Your task to perform on an android device: move a message to another label in the gmail app Image 0: 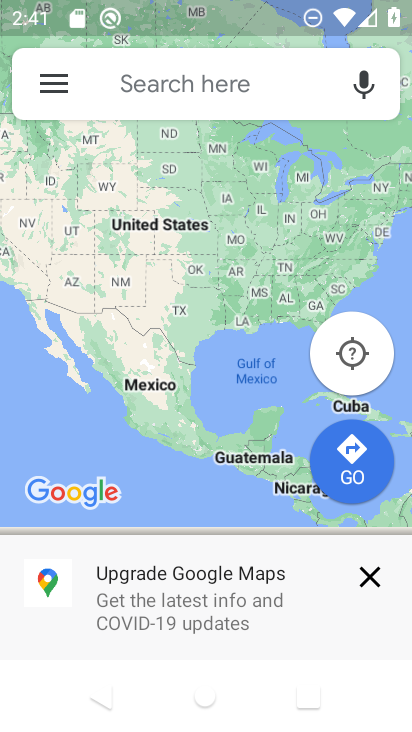
Step 0: press back button
Your task to perform on an android device: move a message to another label in the gmail app Image 1: 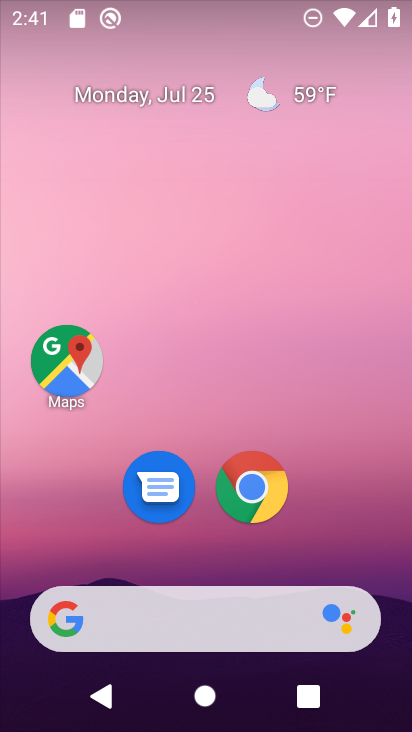
Step 1: drag from (131, 580) to (246, 17)
Your task to perform on an android device: move a message to another label in the gmail app Image 2: 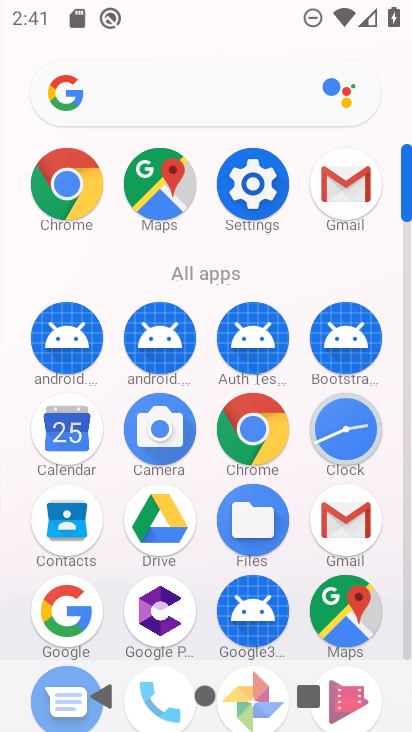
Step 2: click (361, 182)
Your task to perform on an android device: move a message to another label in the gmail app Image 3: 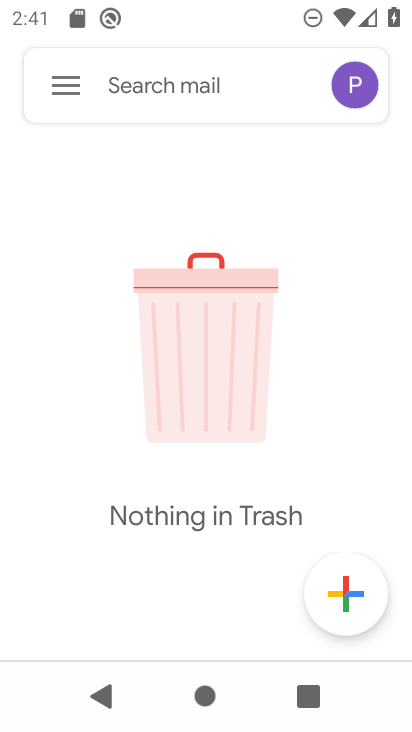
Step 3: click (56, 88)
Your task to perform on an android device: move a message to another label in the gmail app Image 4: 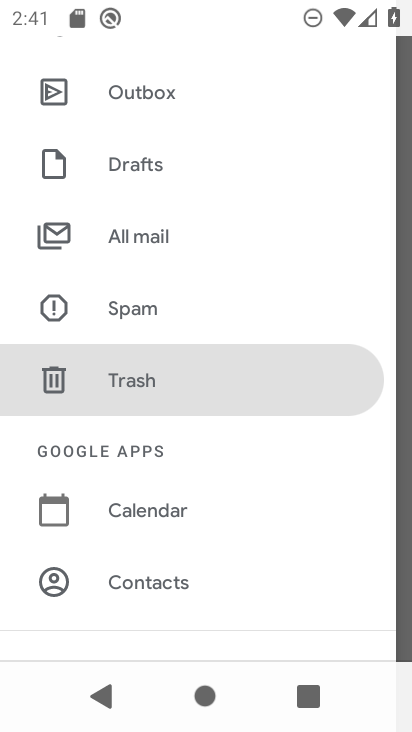
Step 4: click (159, 237)
Your task to perform on an android device: move a message to another label in the gmail app Image 5: 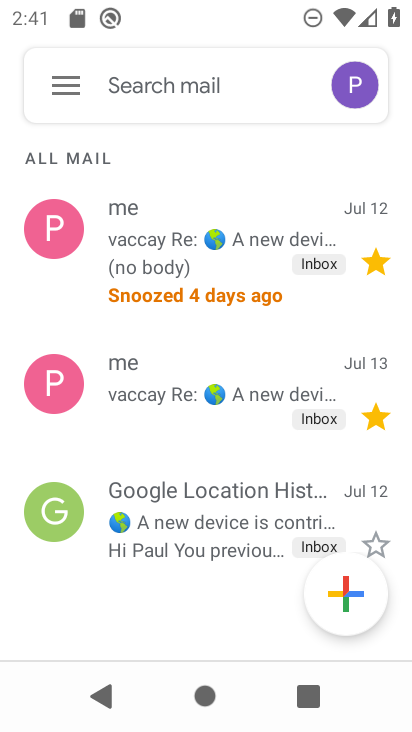
Step 5: click (167, 389)
Your task to perform on an android device: move a message to another label in the gmail app Image 6: 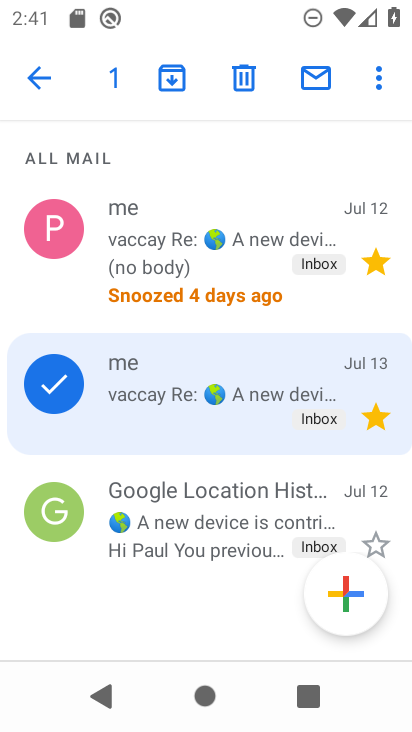
Step 6: click (379, 79)
Your task to perform on an android device: move a message to another label in the gmail app Image 7: 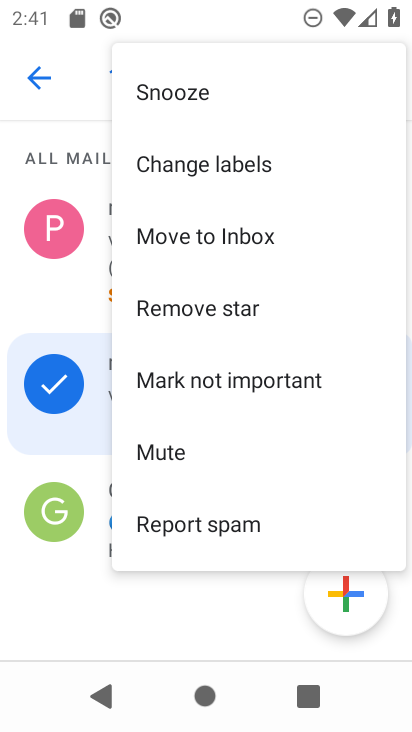
Step 7: click (221, 242)
Your task to perform on an android device: move a message to another label in the gmail app Image 8: 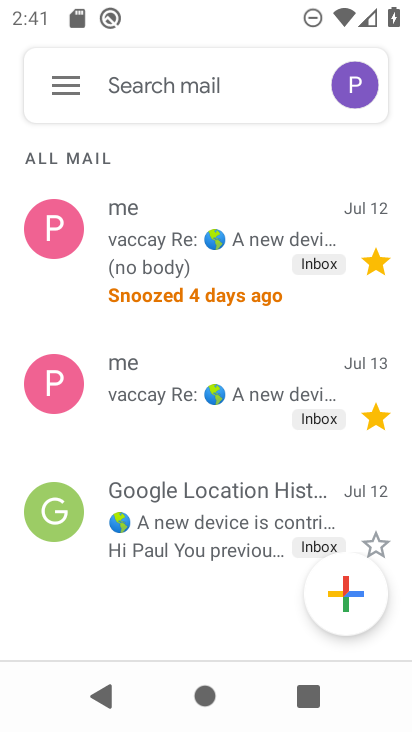
Step 8: task complete